Your task to perform on an android device: Open Google Maps Image 0: 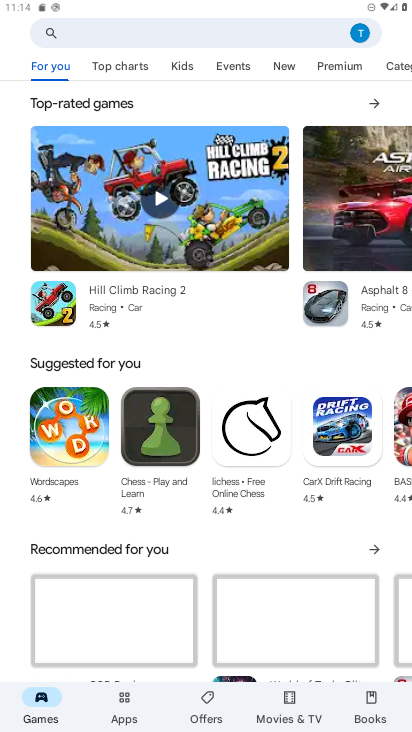
Step 0: press home button
Your task to perform on an android device: Open Google Maps Image 1: 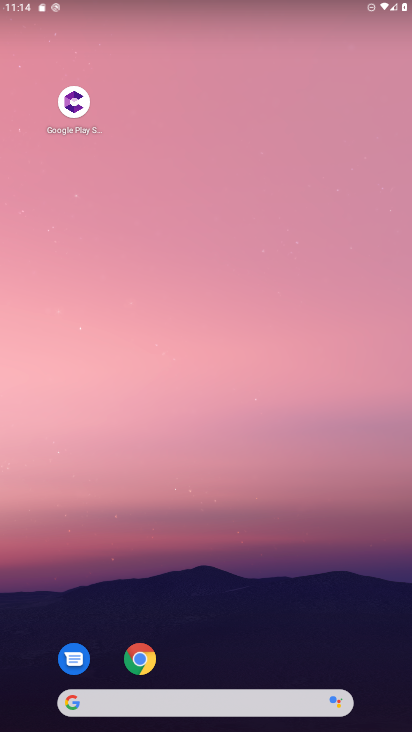
Step 1: drag from (396, 668) to (244, 48)
Your task to perform on an android device: Open Google Maps Image 2: 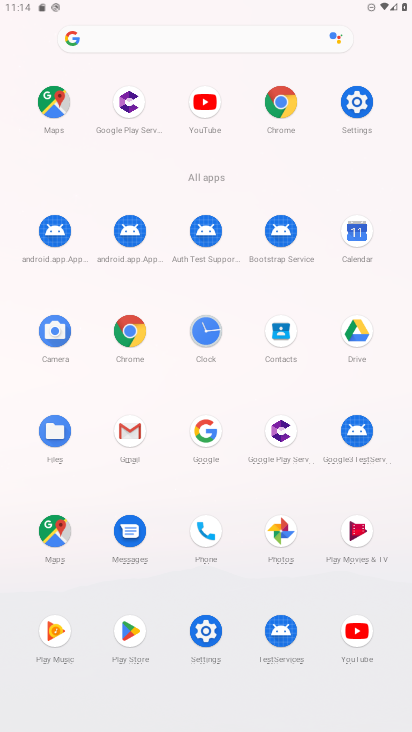
Step 2: click (58, 99)
Your task to perform on an android device: Open Google Maps Image 3: 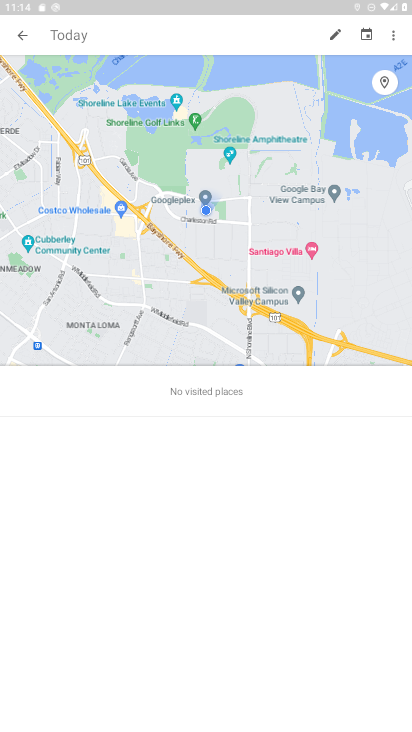
Step 3: task complete